Your task to perform on an android device: Open ESPN.com Image 0: 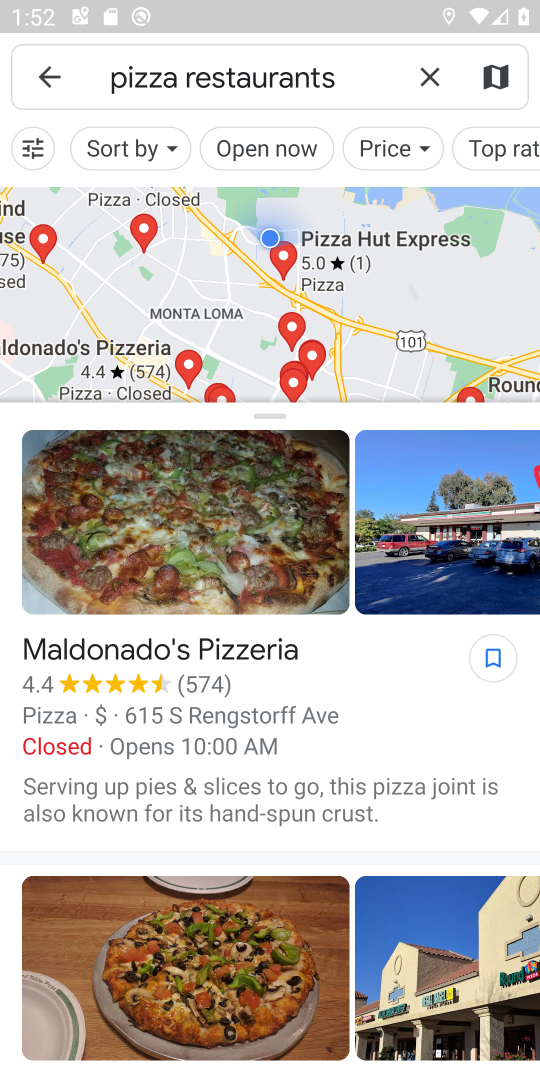
Step 0: press back button
Your task to perform on an android device: Open ESPN.com Image 1: 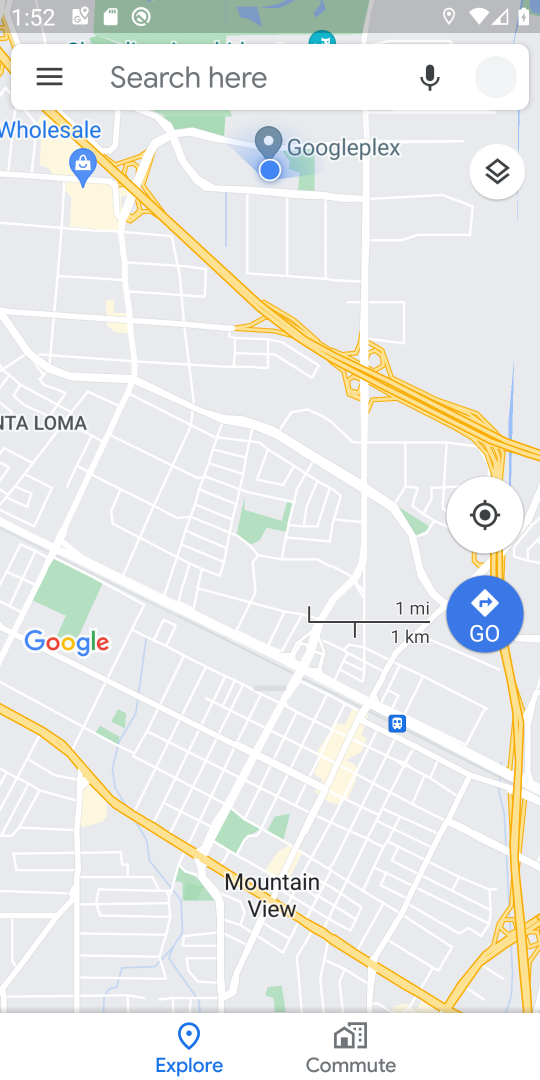
Step 1: press home button
Your task to perform on an android device: Open ESPN.com Image 2: 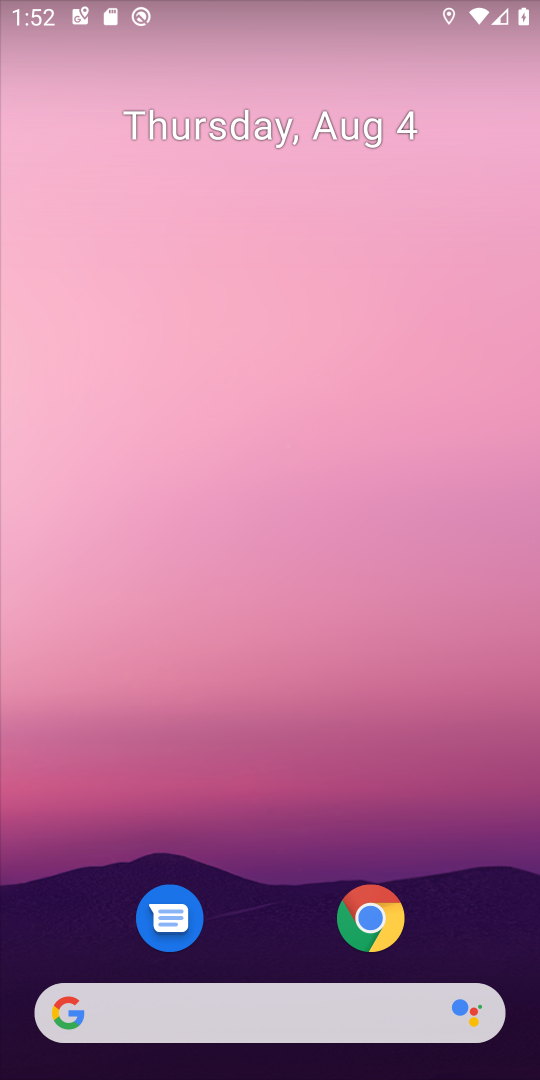
Step 2: click (382, 918)
Your task to perform on an android device: Open ESPN.com Image 3: 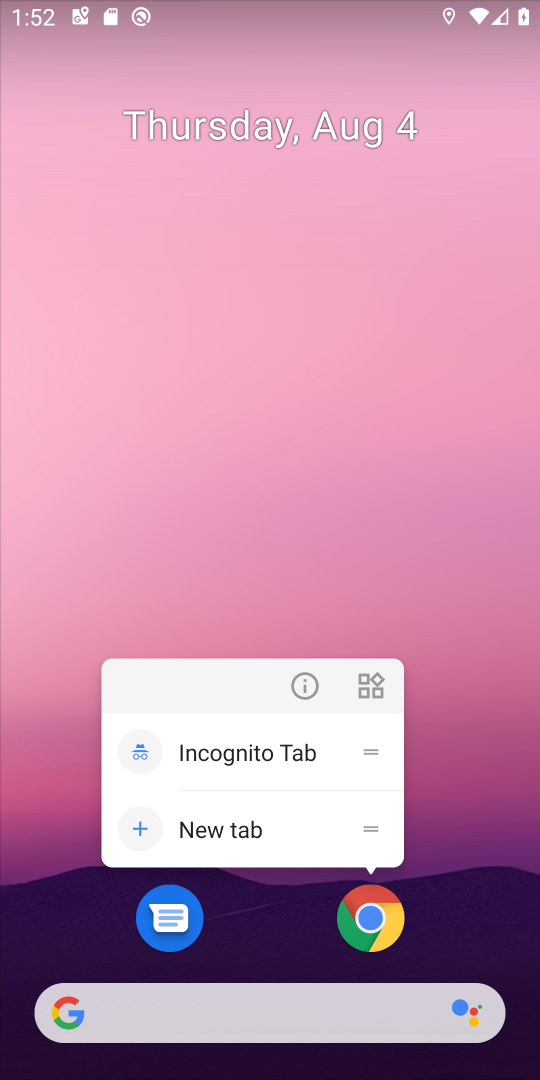
Step 3: click (349, 916)
Your task to perform on an android device: Open ESPN.com Image 4: 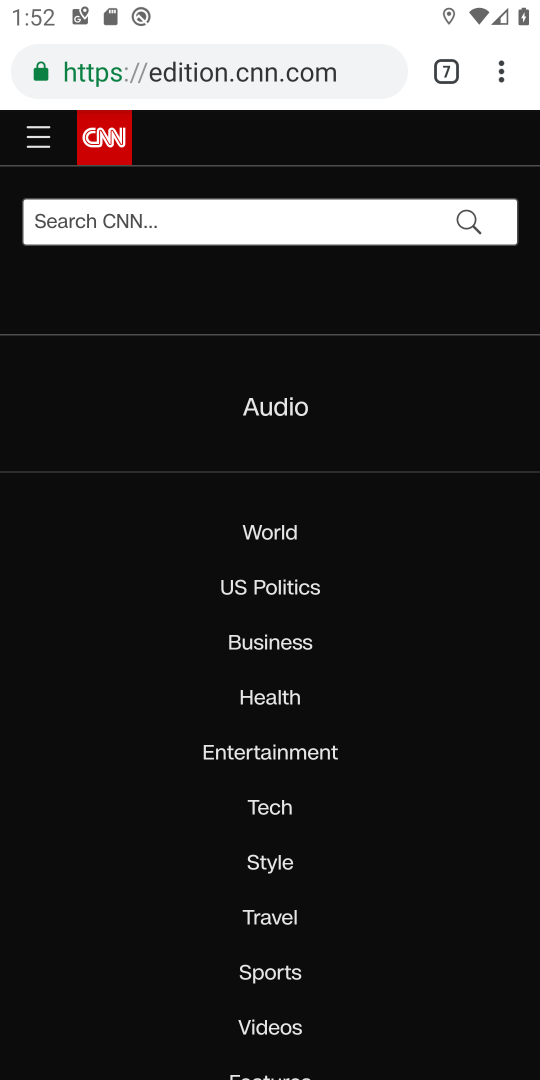
Step 4: click (495, 67)
Your task to perform on an android device: Open ESPN.com Image 5: 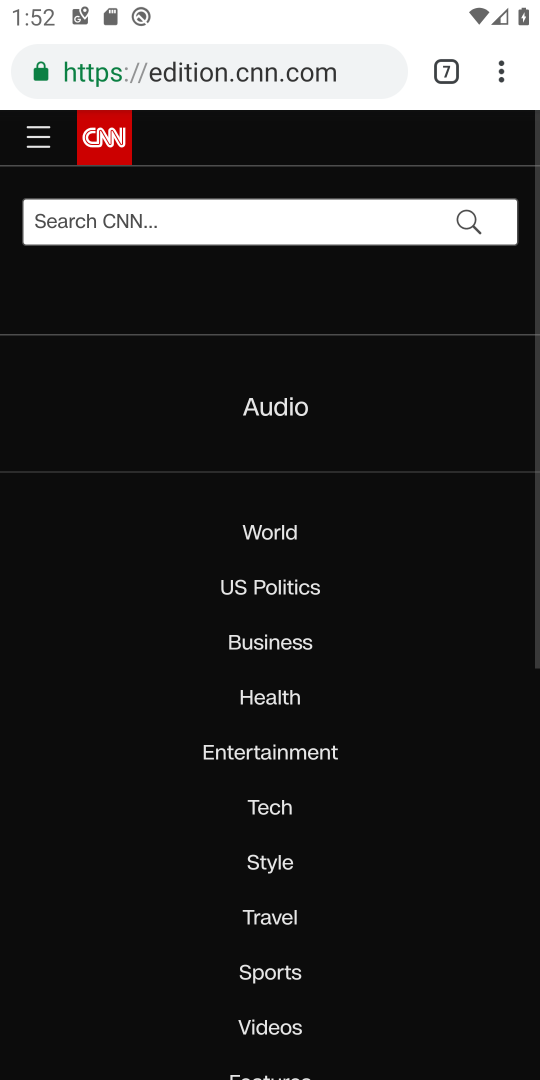
Step 5: click (461, 64)
Your task to perform on an android device: Open ESPN.com Image 6: 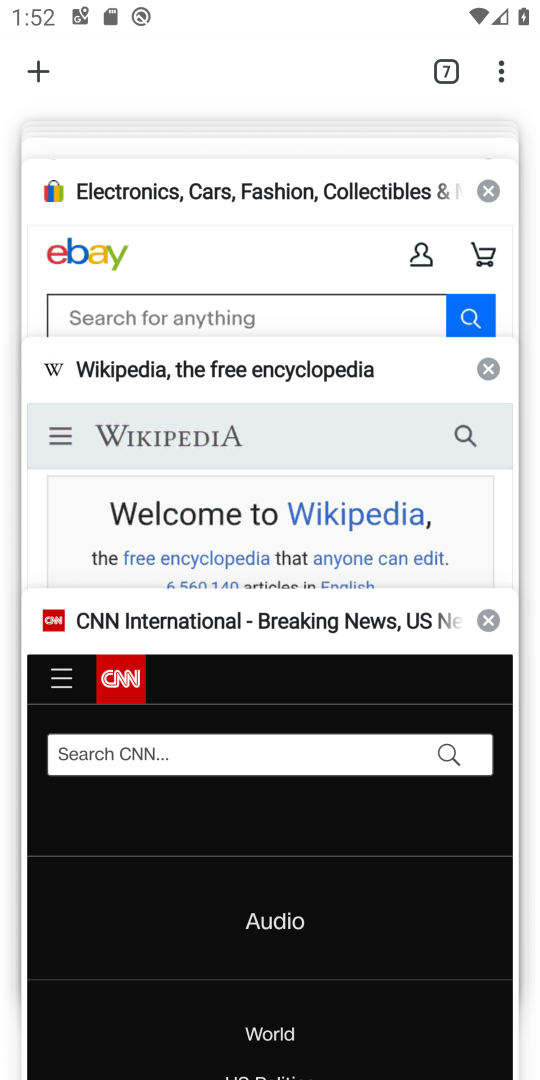
Step 6: click (54, 59)
Your task to perform on an android device: Open ESPN.com Image 7: 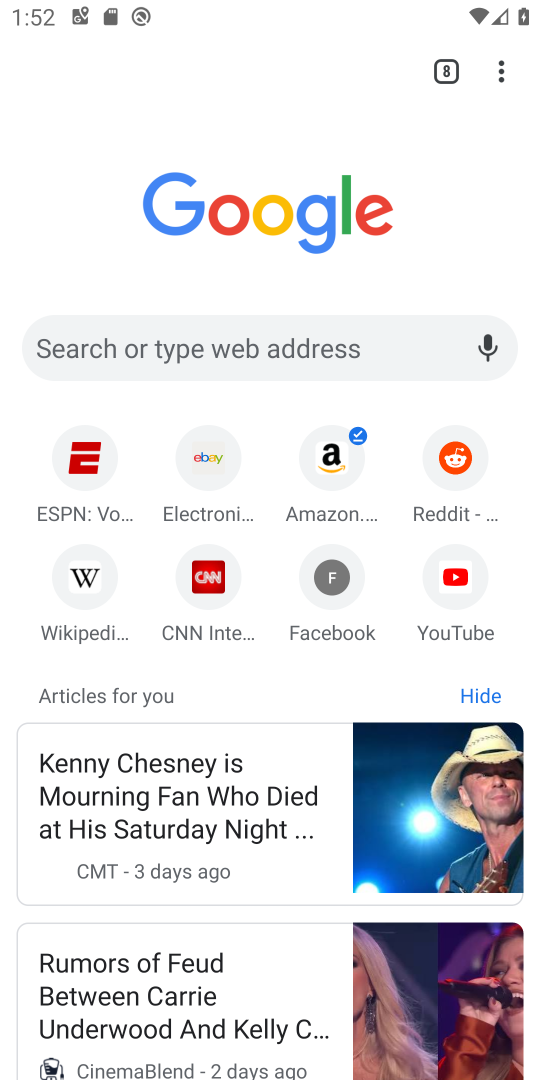
Step 7: click (104, 465)
Your task to perform on an android device: Open ESPN.com Image 8: 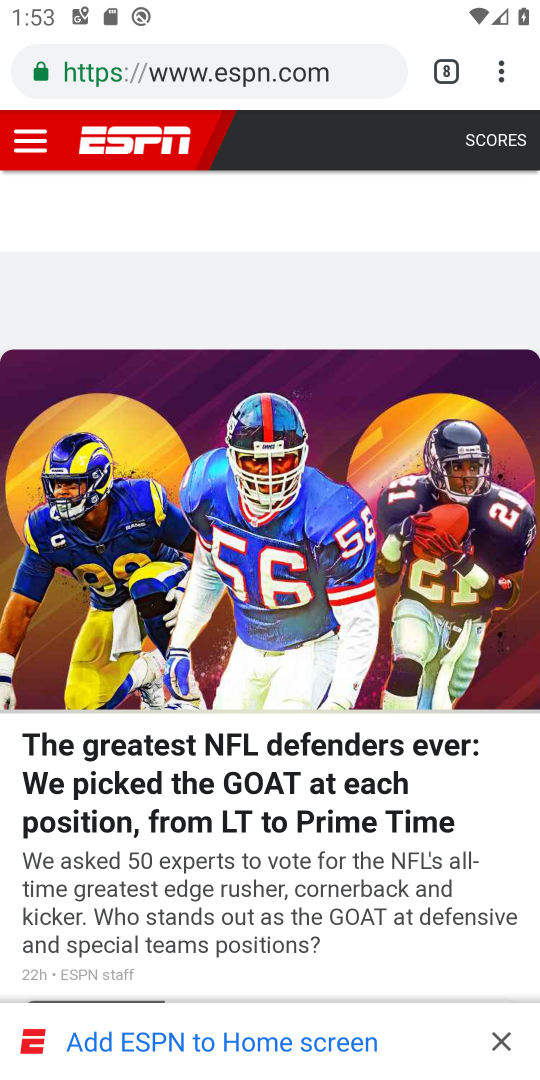
Step 8: task complete